Your task to perform on an android device: Open maps Image 0: 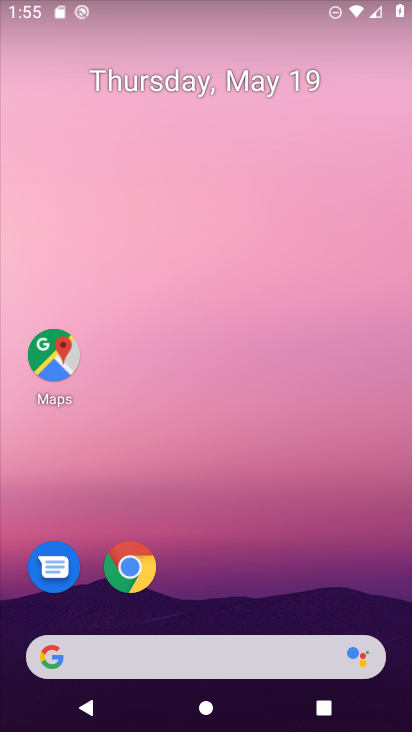
Step 0: click (61, 358)
Your task to perform on an android device: Open maps Image 1: 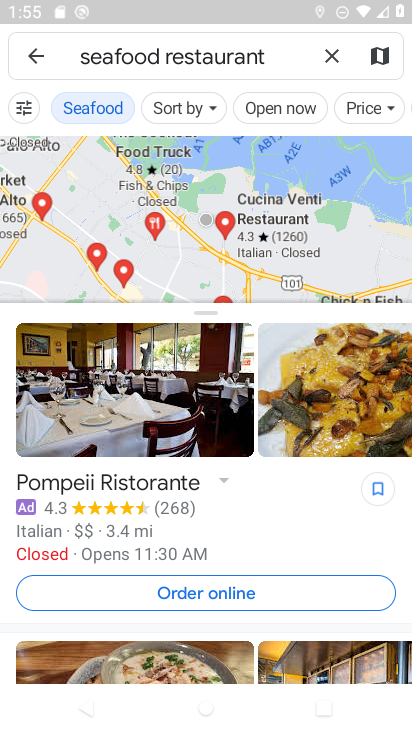
Step 1: click (37, 45)
Your task to perform on an android device: Open maps Image 2: 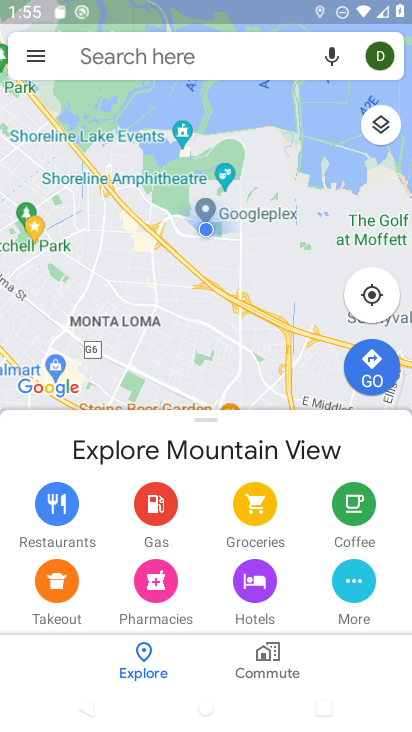
Step 2: task complete